Your task to perform on an android device: read, delete, or share a saved page in the chrome app Image 0: 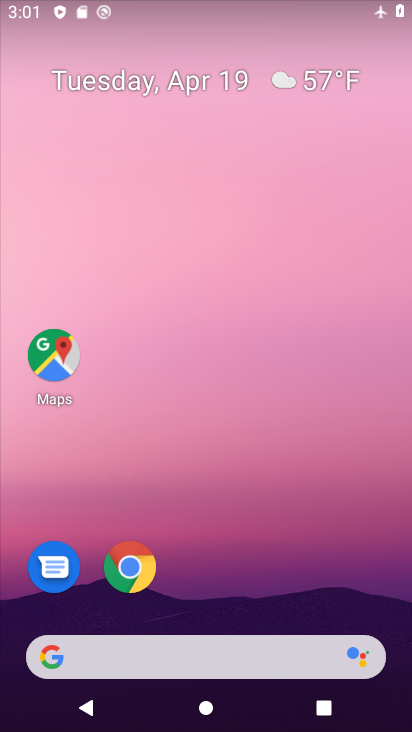
Step 0: drag from (325, 583) to (329, 108)
Your task to perform on an android device: read, delete, or share a saved page in the chrome app Image 1: 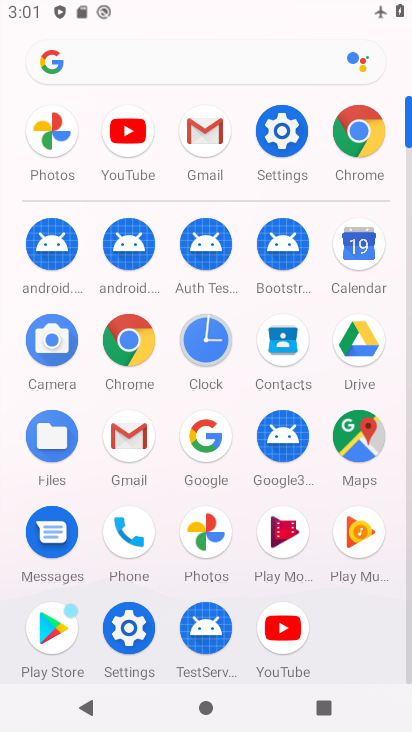
Step 1: click (355, 138)
Your task to perform on an android device: read, delete, or share a saved page in the chrome app Image 2: 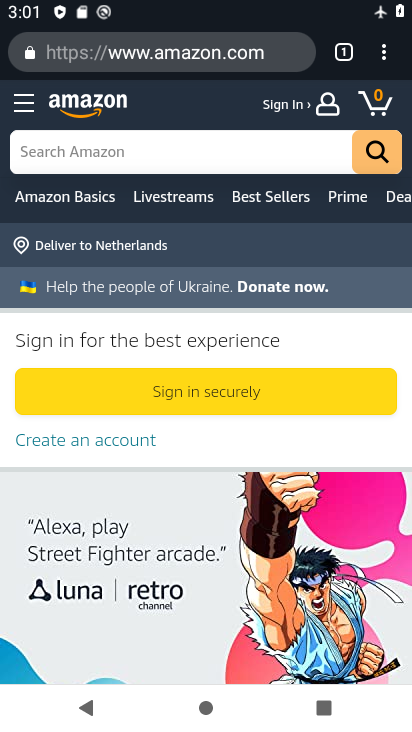
Step 2: click (384, 53)
Your task to perform on an android device: read, delete, or share a saved page in the chrome app Image 3: 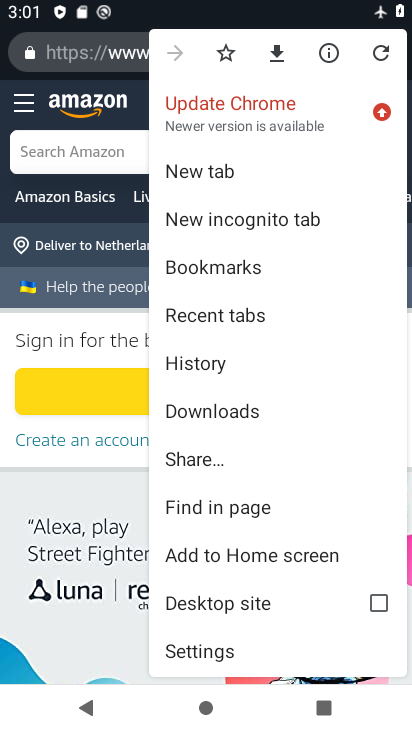
Step 3: click (221, 410)
Your task to perform on an android device: read, delete, or share a saved page in the chrome app Image 4: 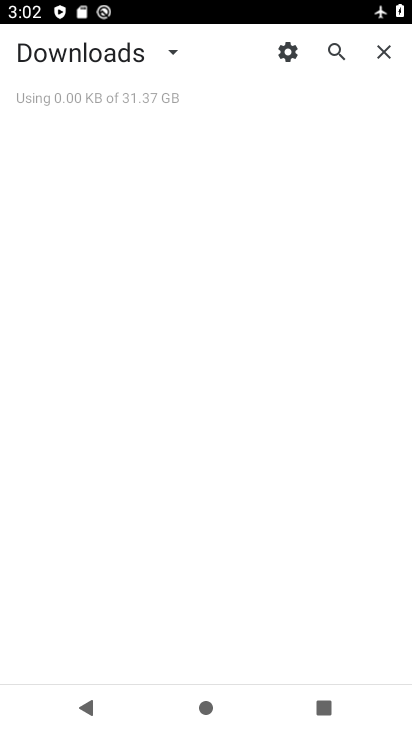
Step 4: click (169, 51)
Your task to perform on an android device: read, delete, or share a saved page in the chrome app Image 5: 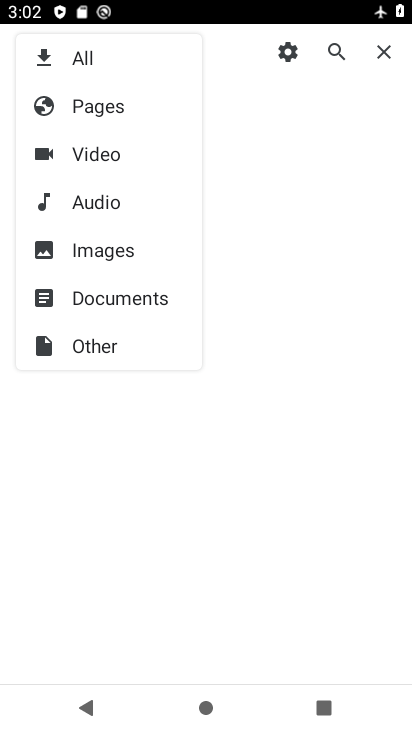
Step 5: click (92, 101)
Your task to perform on an android device: read, delete, or share a saved page in the chrome app Image 6: 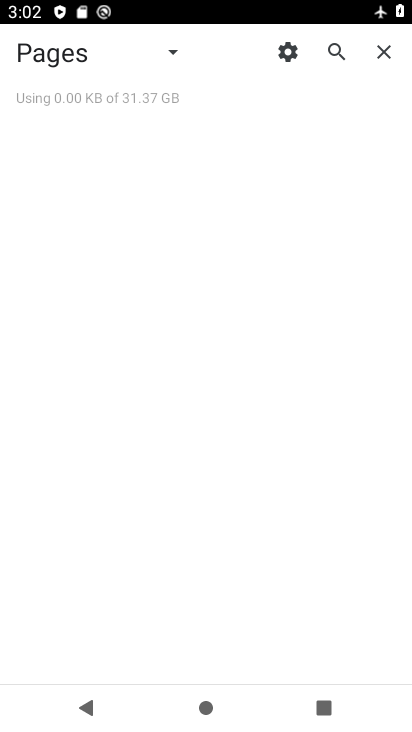
Step 6: task complete